Your task to perform on an android device: Toggle the flashlight Image 0: 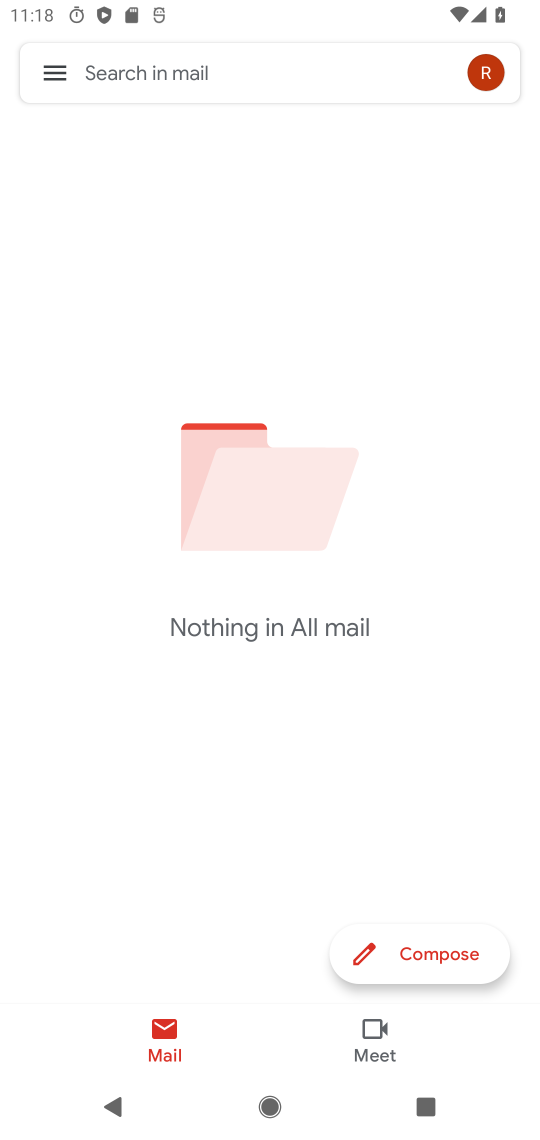
Step 0: press home button
Your task to perform on an android device: Toggle the flashlight Image 1: 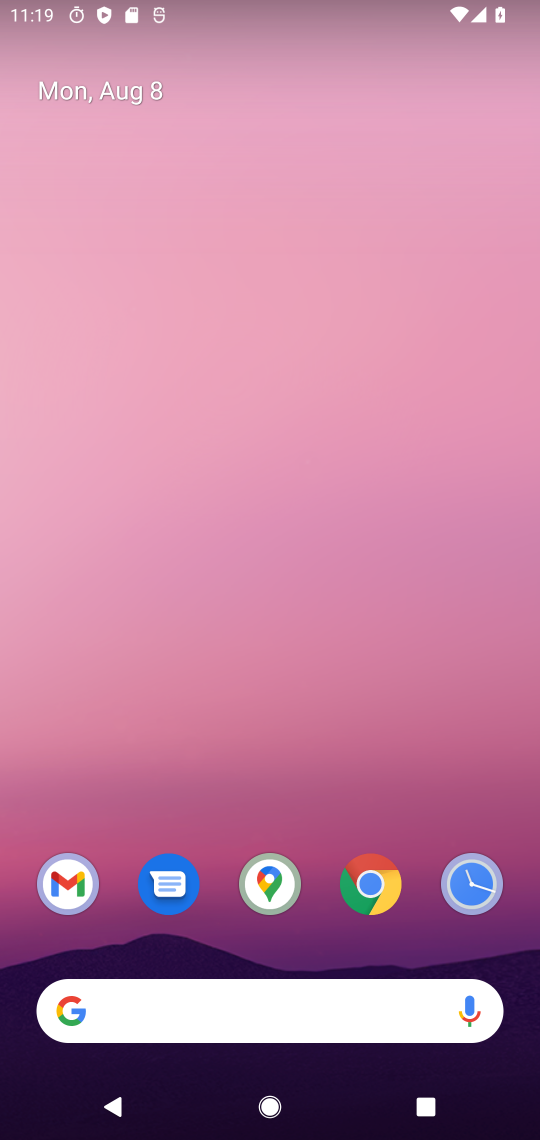
Step 1: task complete